Your task to perform on an android device: Open Google Chrome and open the bookmarks view Image 0: 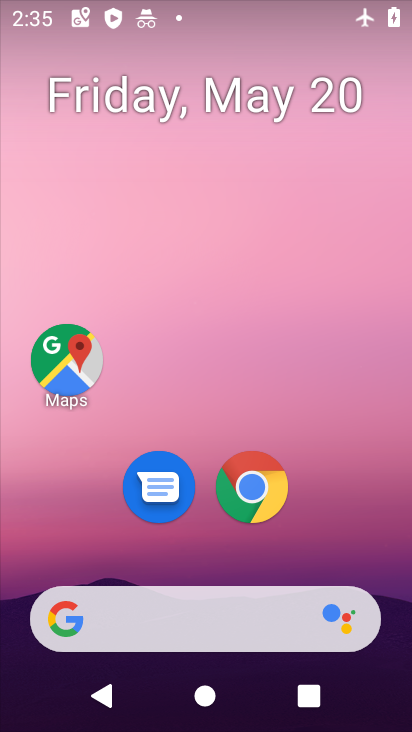
Step 0: drag from (402, 540) to (332, 156)
Your task to perform on an android device: Open Google Chrome and open the bookmarks view Image 1: 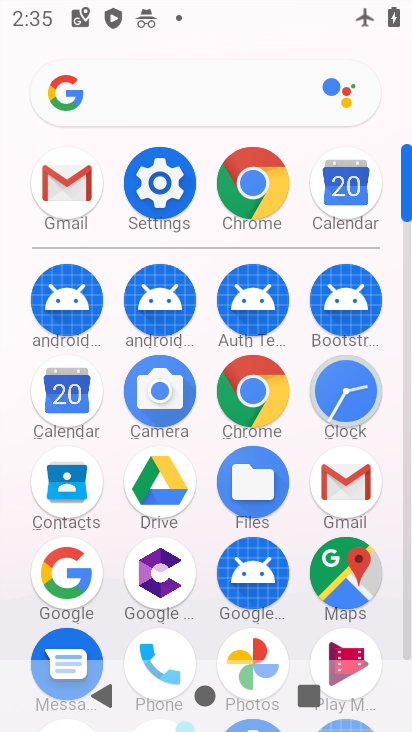
Step 1: click (249, 178)
Your task to perform on an android device: Open Google Chrome and open the bookmarks view Image 2: 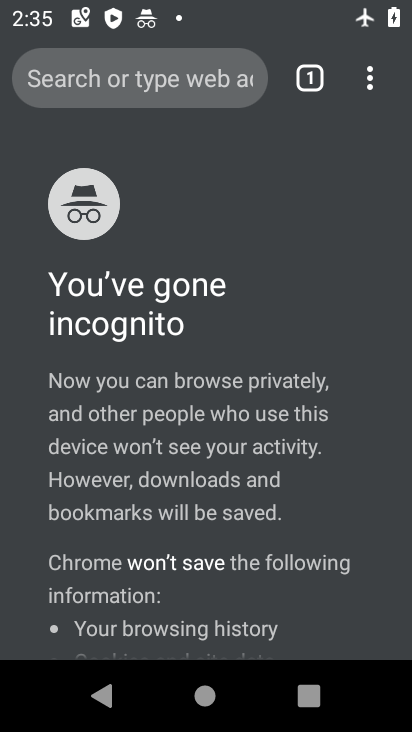
Step 2: click (356, 85)
Your task to perform on an android device: Open Google Chrome and open the bookmarks view Image 3: 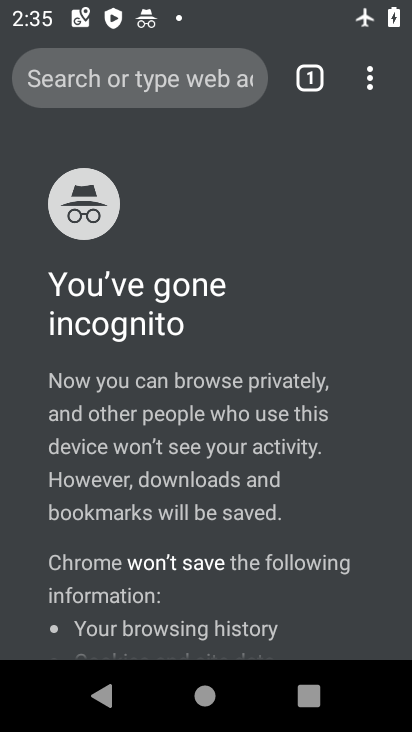
Step 3: task complete